Your task to perform on an android device: install app "Lyft - Rideshare, Bikes, Scooters & Transit" Image 0: 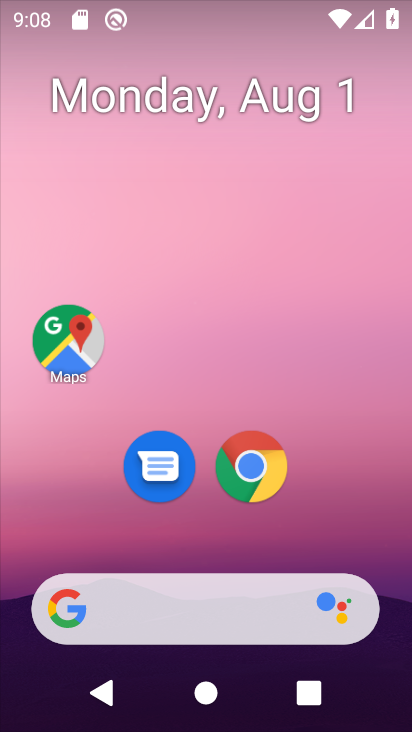
Step 0: drag from (239, 709) to (238, 83)
Your task to perform on an android device: install app "Lyft - Rideshare, Bikes, Scooters & Transit" Image 1: 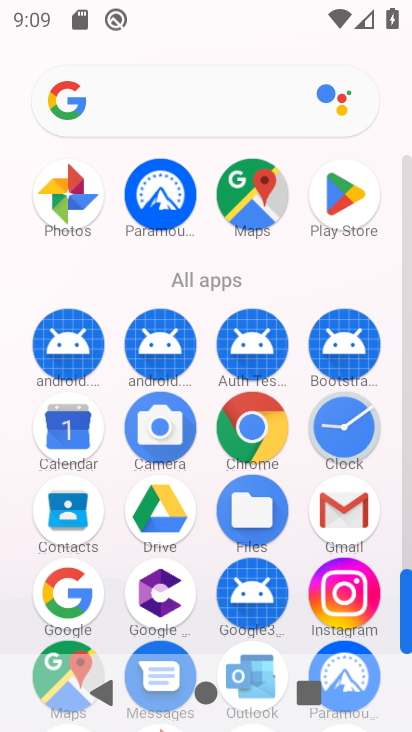
Step 1: click (340, 183)
Your task to perform on an android device: install app "Lyft - Rideshare, Bikes, Scooters & Transit" Image 2: 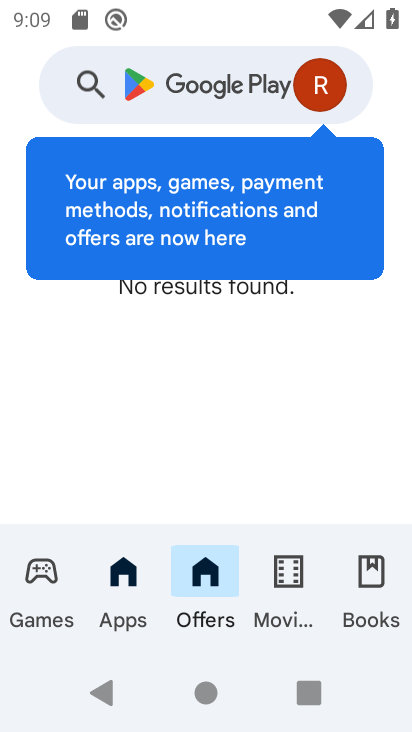
Step 2: click (242, 92)
Your task to perform on an android device: install app "Lyft - Rideshare, Bikes, Scooters & Transit" Image 3: 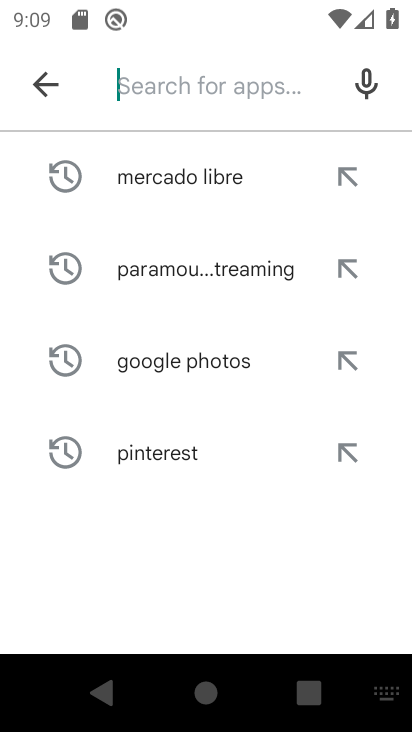
Step 3: type "Lyft - Rideshare, Bikes, Scooters & Transit"
Your task to perform on an android device: install app "Lyft - Rideshare, Bikes, Scooters & Transit" Image 4: 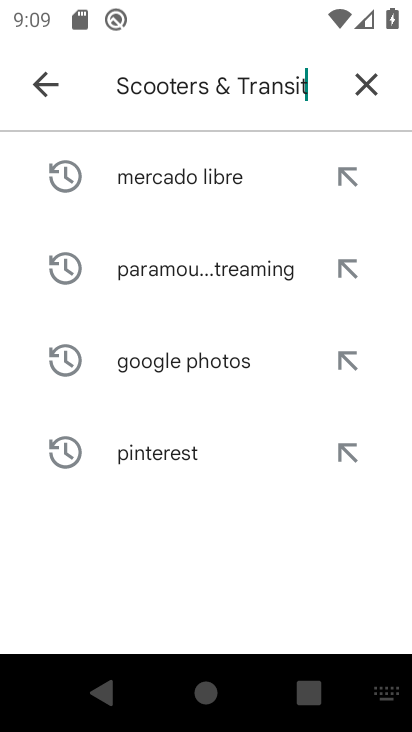
Step 4: type ""
Your task to perform on an android device: install app "Lyft - Rideshare, Bikes, Scooters & Transit" Image 5: 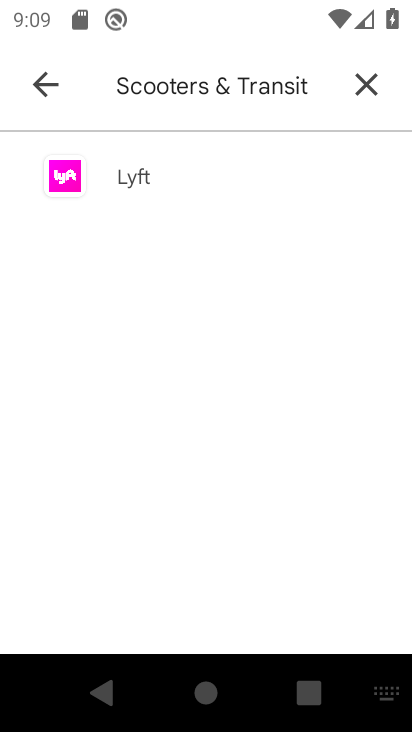
Step 5: click (137, 178)
Your task to perform on an android device: install app "Lyft - Rideshare, Bikes, Scooters & Transit" Image 6: 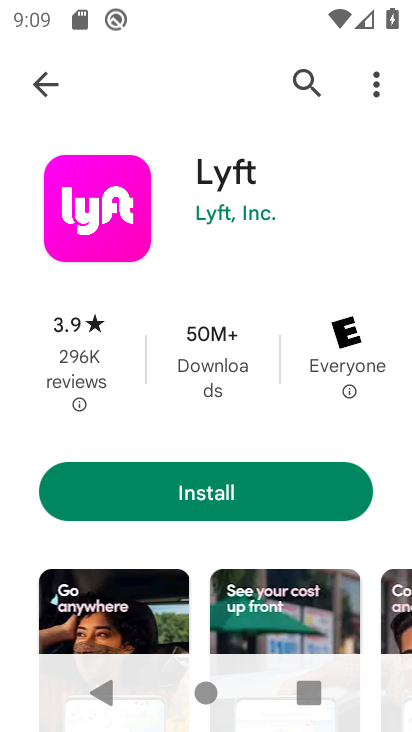
Step 6: click (232, 486)
Your task to perform on an android device: install app "Lyft - Rideshare, Bikes, Scooters & Transit" Image 7: 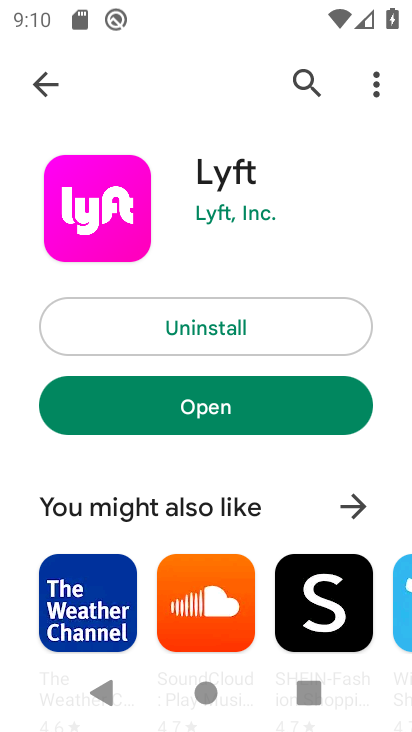
Step 7: task complete